Your task to perform on an android device: open chrome privacy settings Image 0: 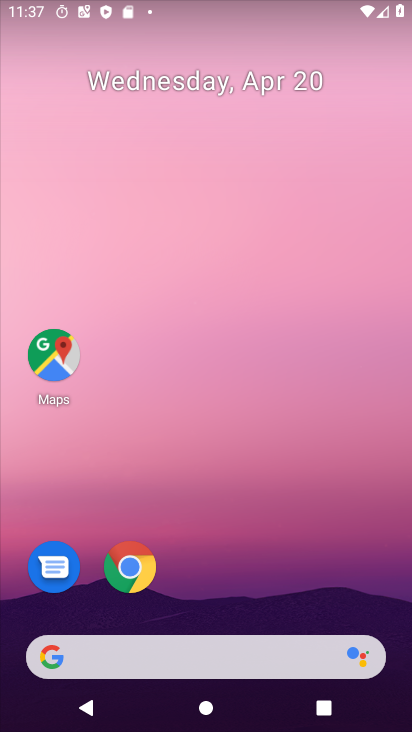
Step 0: click (120, 572)
Your task to perform on an android device: open chrome privacy settings Image 1: 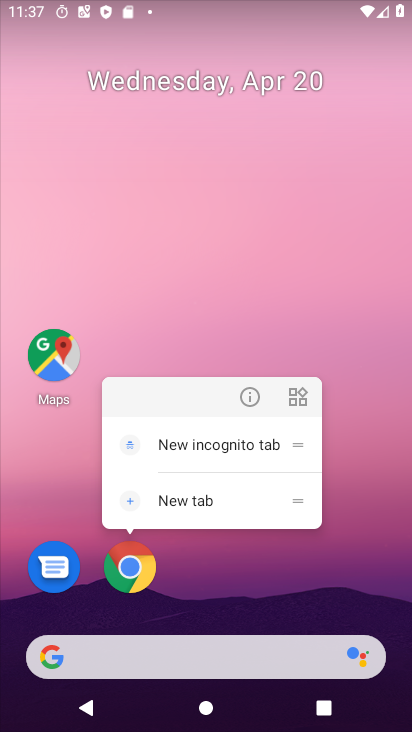
Step 1: click (256, 401)
Your task to perform on an android device: open chrome privacy settings Image 2: 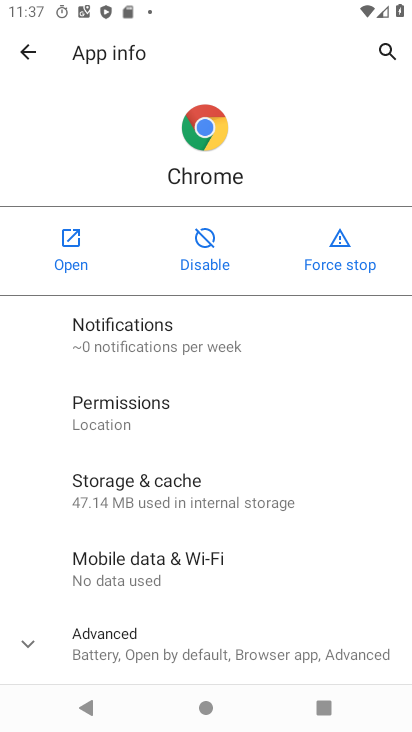
Step 2: click (75, 269)
Your task to perform on an android device: open chrome privacy settings Image 3: 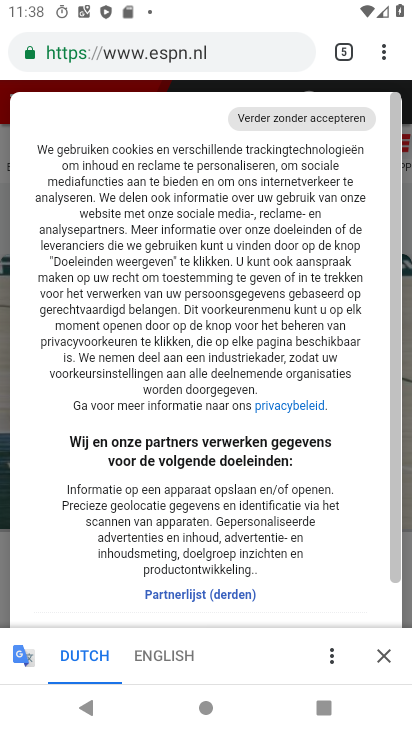
Step 3: click (356, 66)
Your task to perform on an android device: open chrome privacy settings Image 4: 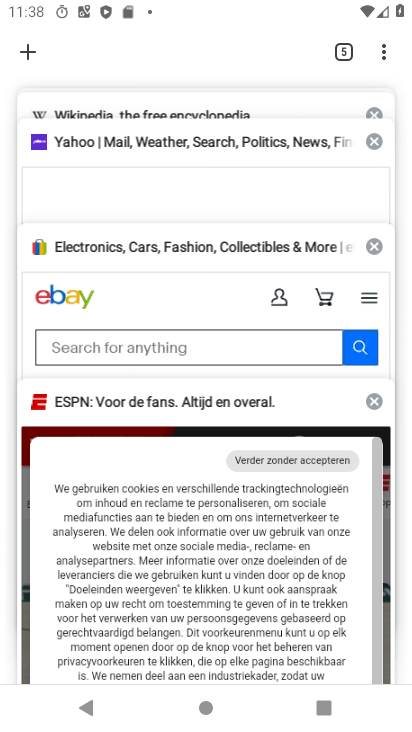
Step 4: click (37, 48)
Your task to perform on an android device: open chrome privacy settings Image 5: 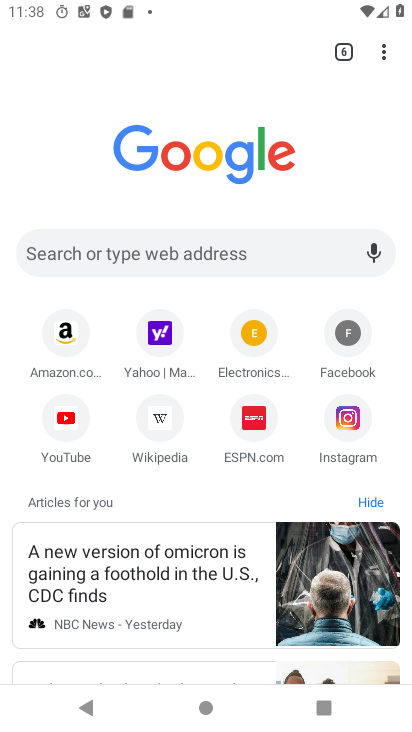
Step 5: click (394, 51)
Your task to perform on an android device: open chrome privacy settings Image 6: 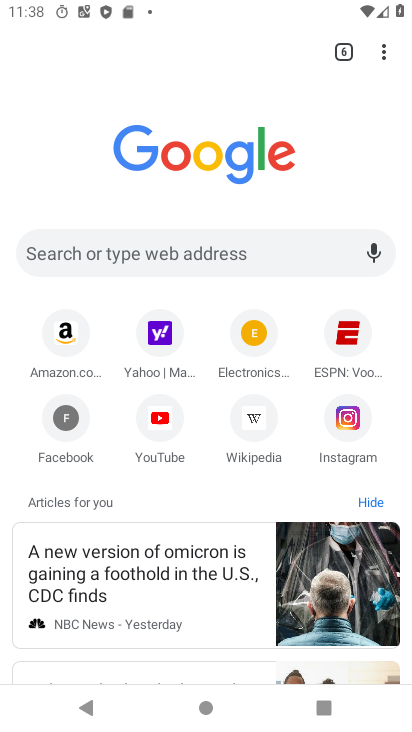
Step 6: click (384, 66)
Your task to perform on an android device: open chrome privacy settings Image 7: 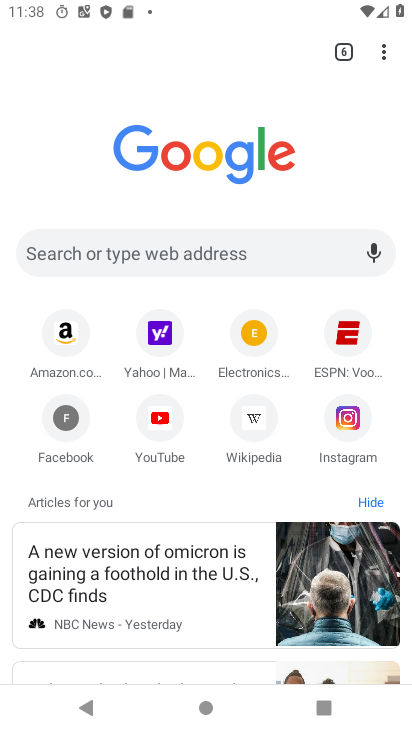
Step 7: click (385, 66)
Your task to perform on an android device: open chrome privacy settings Image 8: 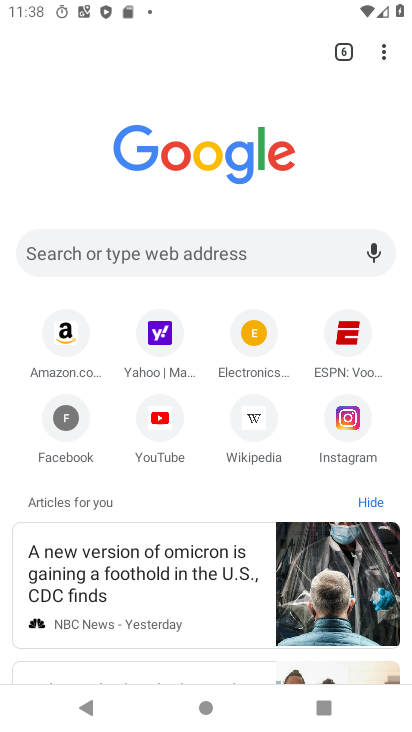
Step 8: click (389, 53)
Your task to perform on an android device: open chrome privacy settings Image 9: 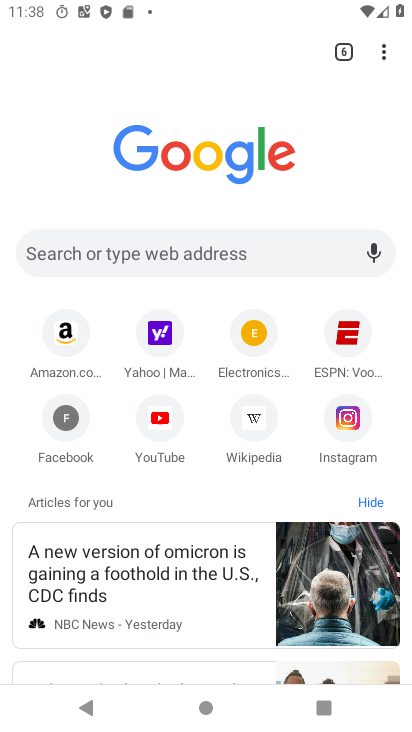
Step 9: click (389, 53)
Your task to perform on an android device: open chrome privacy settings Image 10: 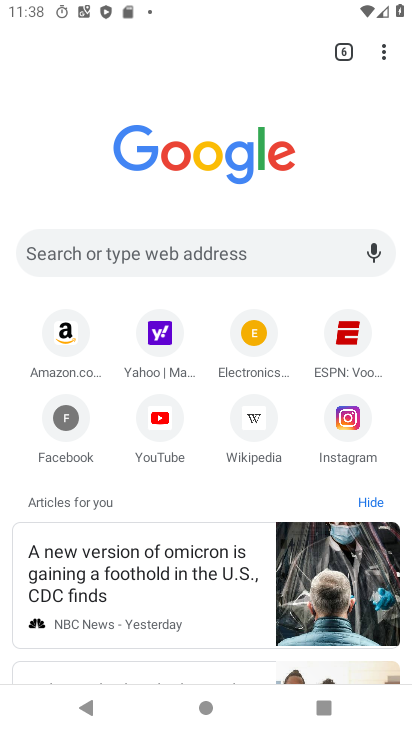
Step 10: click (382, 53)
Your task to perform on an android device: open chrome privacy settings Image 11: 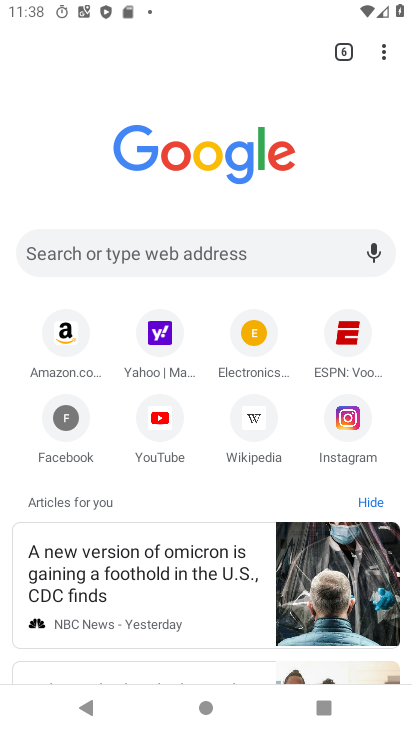
Step 11: click (382, 53)
Your task to perform on an android device: open chrome privacy settings Image 12: 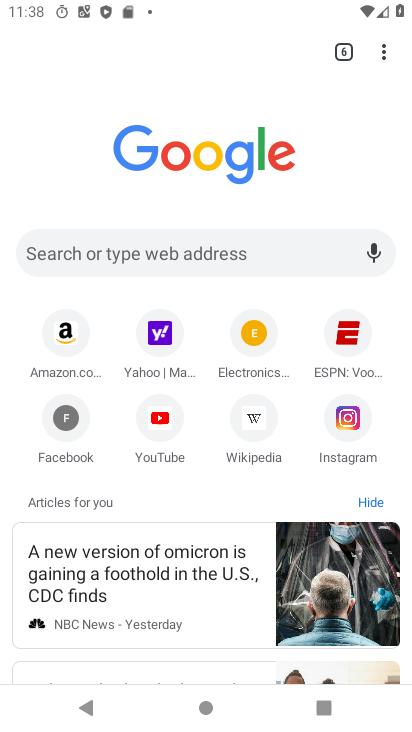
Step 12: click (385, 54)
Your task to perform on an android device: open chrome privacy settings Image 13: 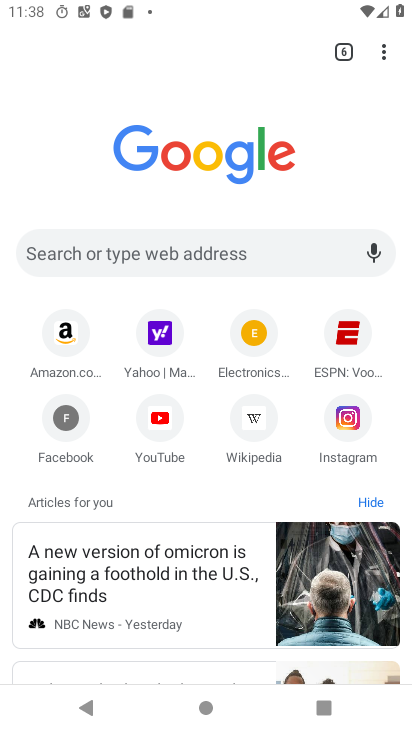
Step 13: click (393, 64)
Your task to perform on an android device: open chrome privacy settings Image 14: 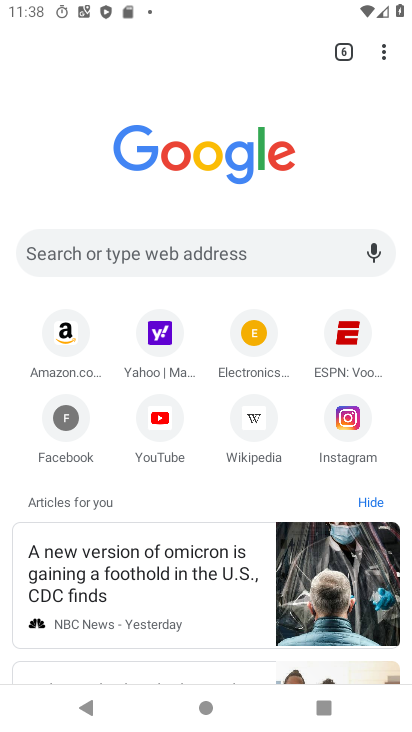
Step 14: click (387, 55)
Your task to perform on an android device: open chrome privacy settings Image 15: 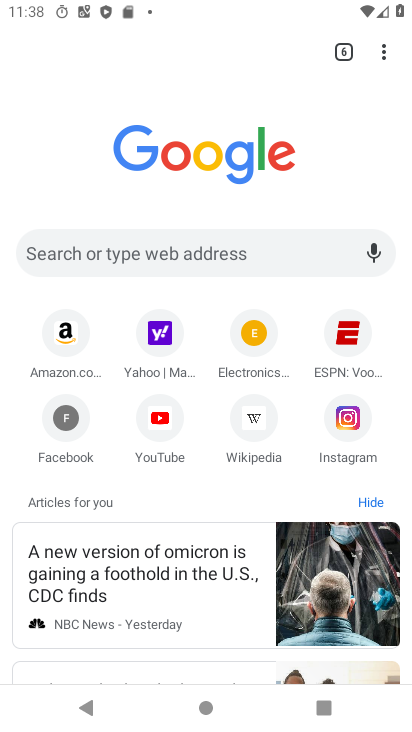
Step 15: click (385, 59)
Your task to perform on an android device: open chrome privacy settings Image 16: 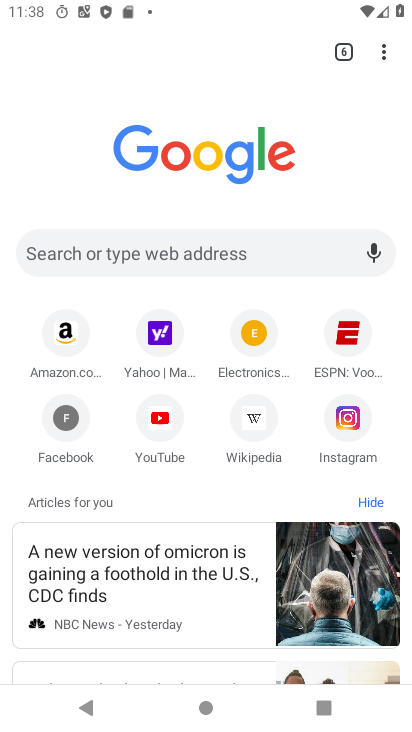
Step 16: click (376, 58)
Your task to perform on an android device: open chrome privacy settings Image 17: 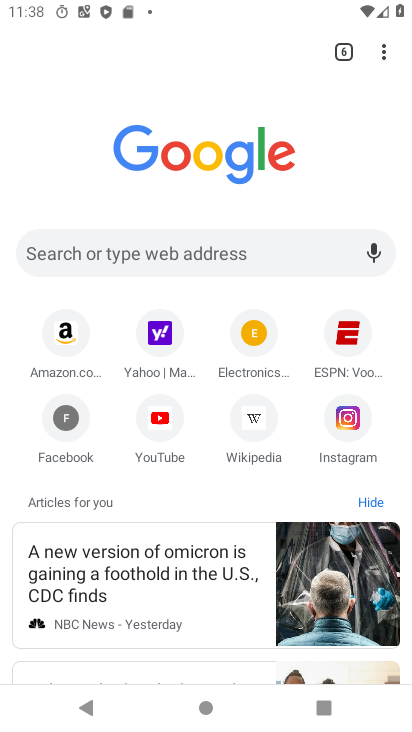
Step 17: click (397, 55)
Your task to perform on an android device: open chrome privacy settings Image 18: 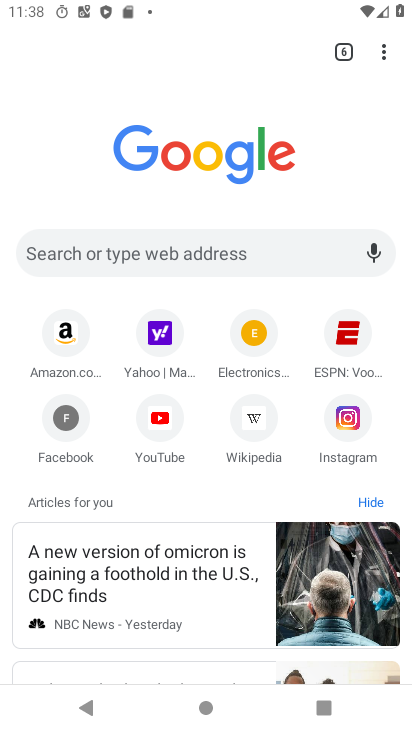
Step 18: click (379, 59)
Your task to perform on an android device: open chrome privacy settings Image 19: 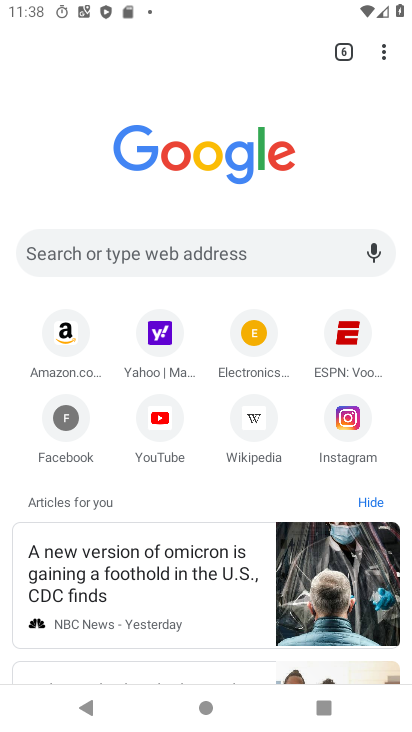
Step 19: click (379, 59)
Your task to perform on an android device: open chrome privacy settings Image 20: 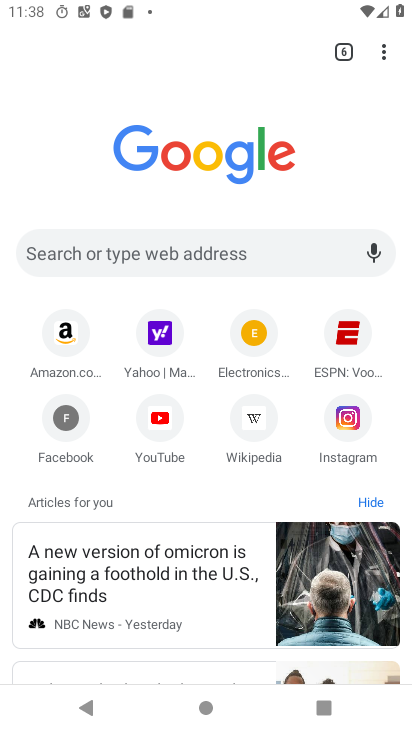
Step 20: click (379, 59)
Your task to perform on an android device: open chrome privacy settings Image 21: 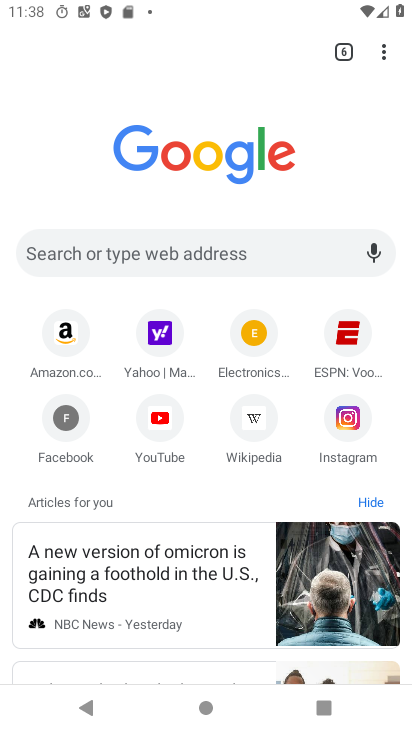
Step 21: click (379, 59)
Your task to perform on an android device: open chrome privacy settings Image 22: 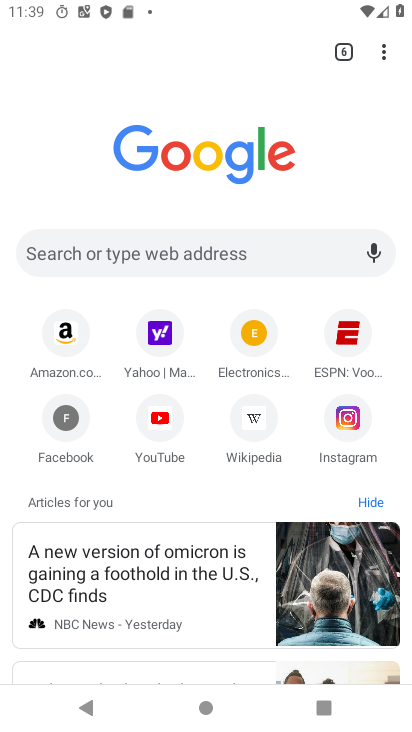
Step 22: click (387, 51)
Your task to perform on an android device: open chrome privacy settings Image 23: 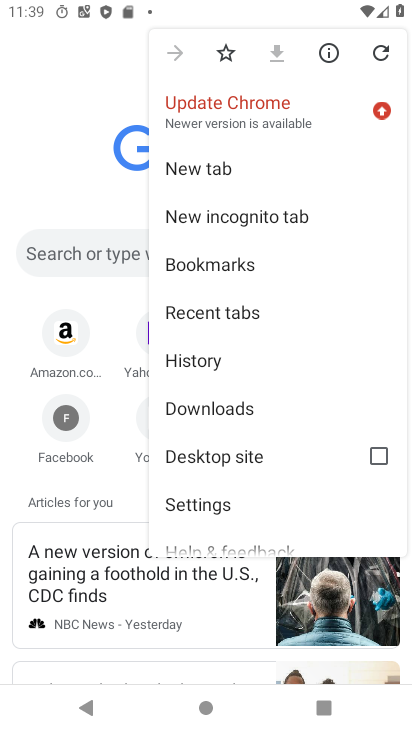
Step 23: click (221, 500)
Your task to perform on an android device: open chrome privacy settings Image 24: 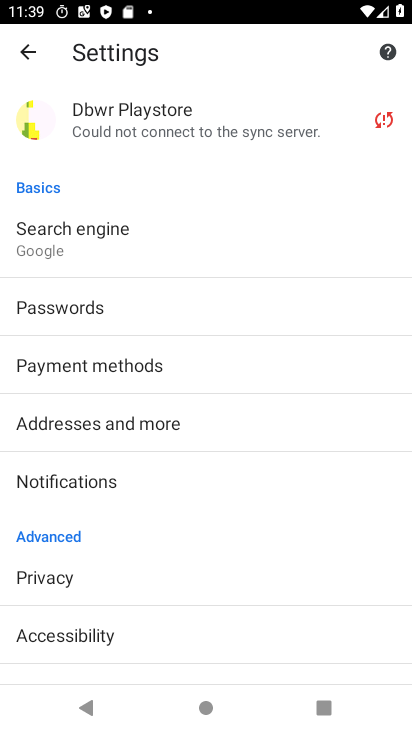
Step 24: click (82, 572)
Your task to perform on an android device: open chrome privacy settings Image 25: 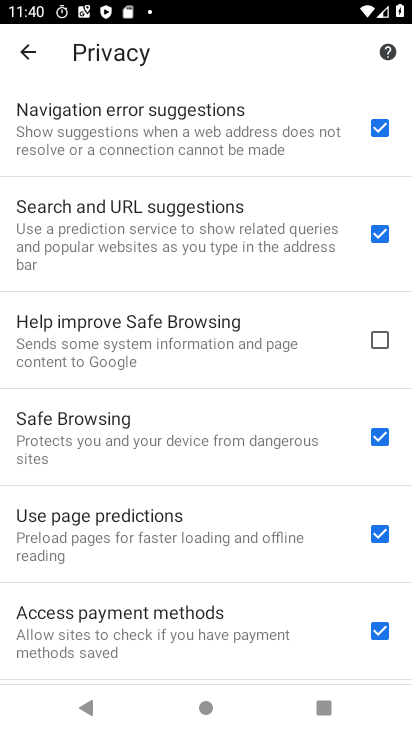
Step 25: task complete